Your task to perform on an android device: turn pop-ups off in chrome Image 0: 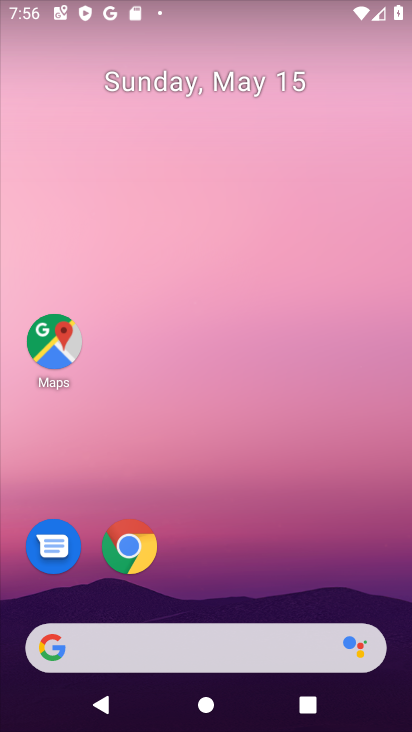
Step 0: click (144, 544)
Your task to perform on an android device: turn pop-ups off in chrome Image 1: 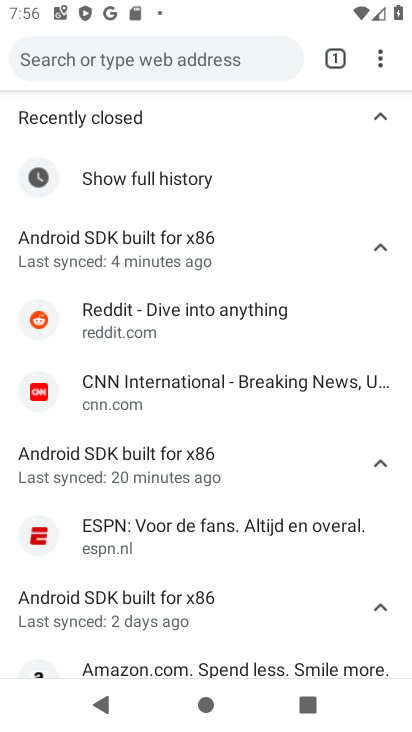
Step 1: click (375, 47)
Your task to perform on an android device: turn pop-ups off in chrome Image 2: 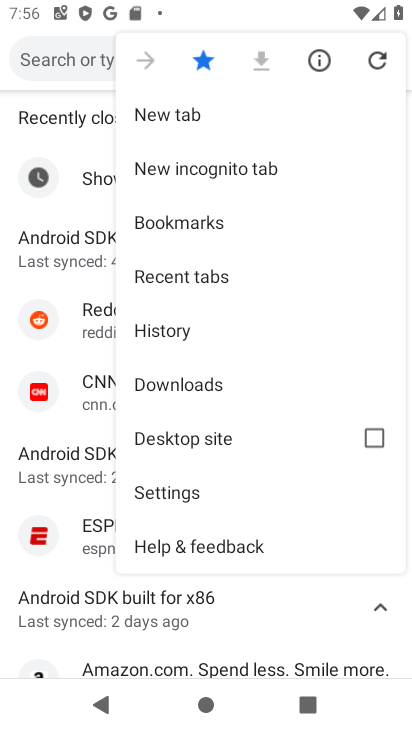
Step 2: click (178, 479)
Your task to perform on an android device: turn pop-ups off in chrome Image 3: 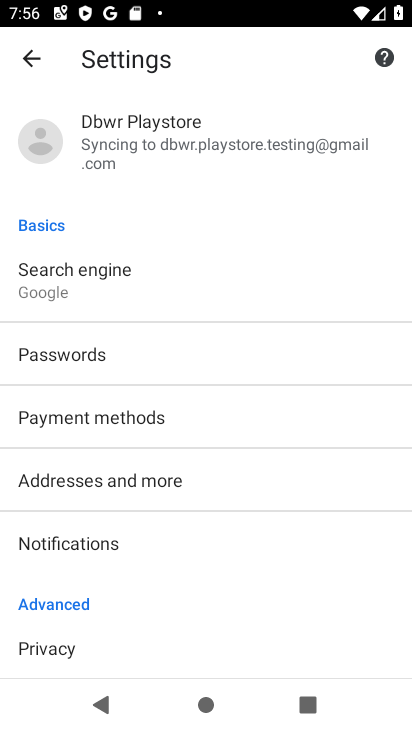
Step 3: drag from (200, 576) to (309, 192)
Your task to perform on an android device: turn pop-ups off in chrome Image 4: 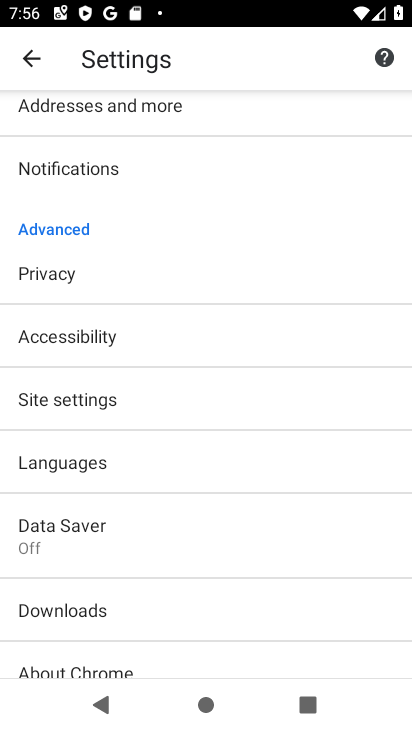
Step 4: click (206, 392)
Your task to perform on an android device: turn pop-ups off in chrome Image 5: 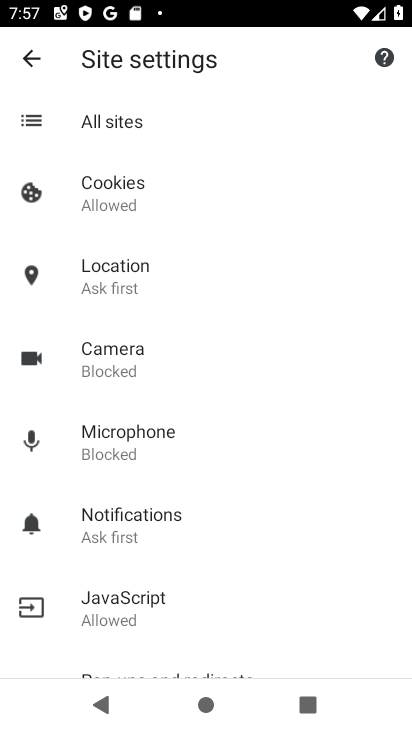
Step 5: drag from (234, 527) to (268, 312)
Your task to perform on an android device: turn pop-ups off in chrome Image 6: 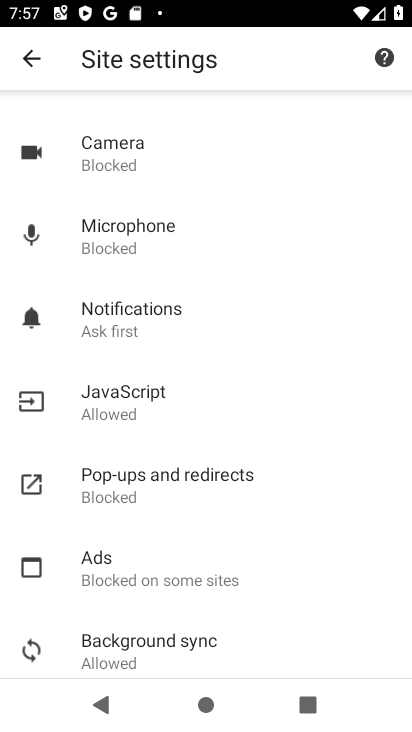
Step 6: click (188, 469)
Your task to perform on an android device: turn pop-ups off in chrome Image 7: 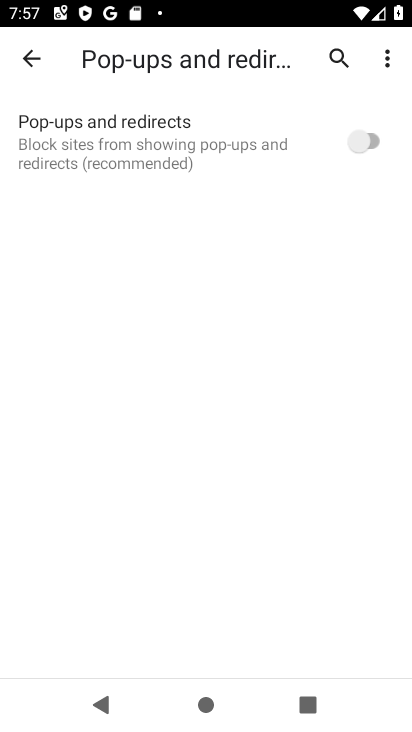
Step 7: task complete